Your task to perform on an android device: toggle sleep mode Image 0: 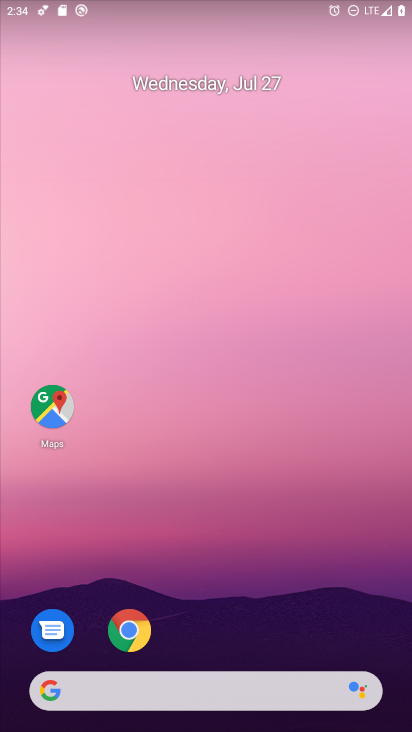
Step 0: drag from (380, 624) to (344, 192)
Your task to perform on an android device: toggle sleep mode Image 1: 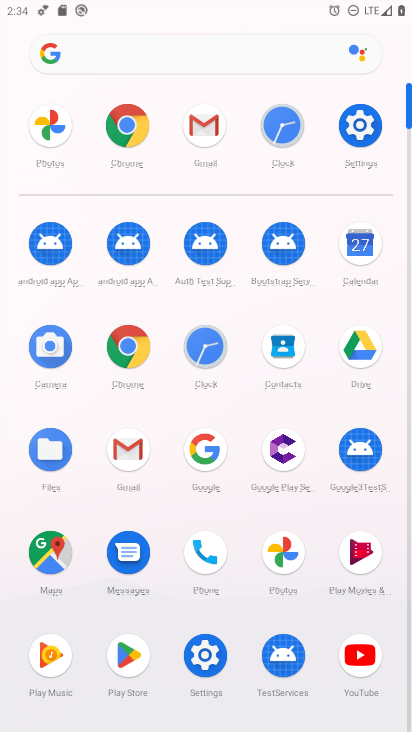
Step 1: click (205, 659)
Your task to perform on an android device: toggle sleep mode Image 2: 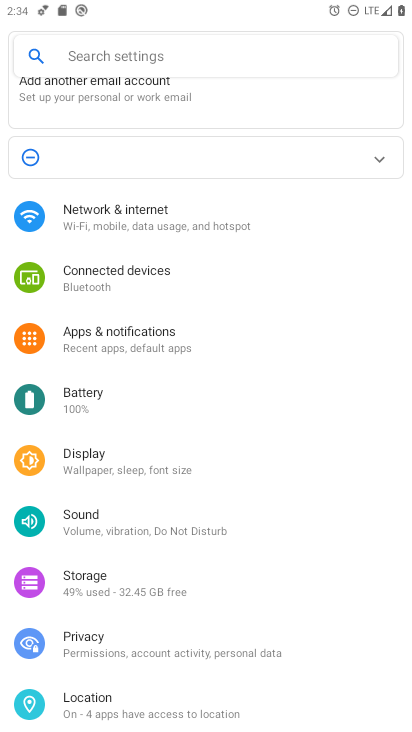
Step 2: click (98, 463)
Your task to perform on an android device: toggle sleep mode Image 3: 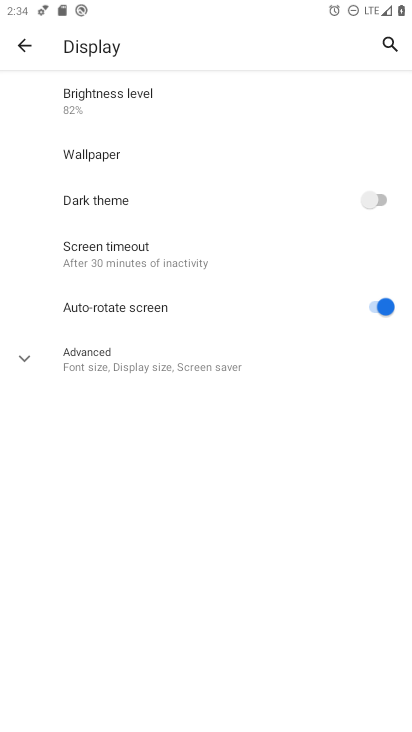
Step 3: click (23, 356)
Your task to perform on an android device: toggle sleep mode Image 4: 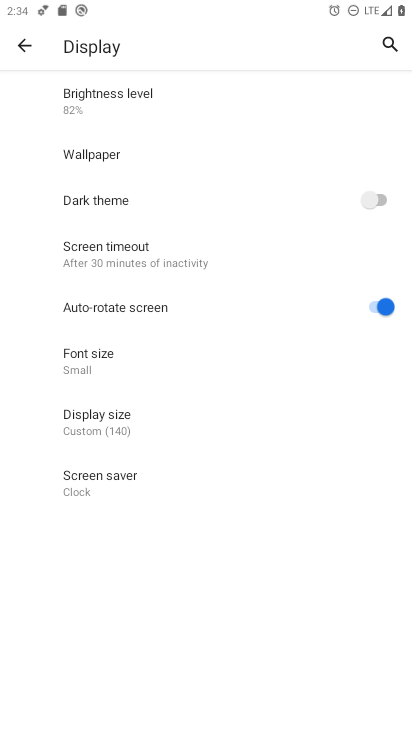
Step 4: task complete